Your task to perform on an android device: Open Chrome and go to settings Image 0: 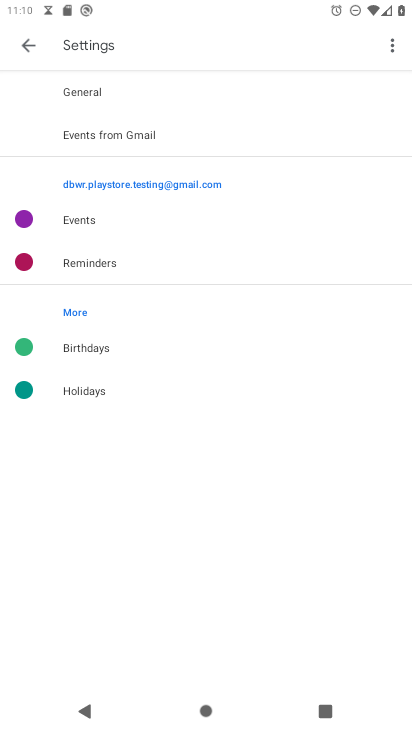
Step 0: press home button
Your task to perform on an android device: Open Chrome and go to settings Image 1: 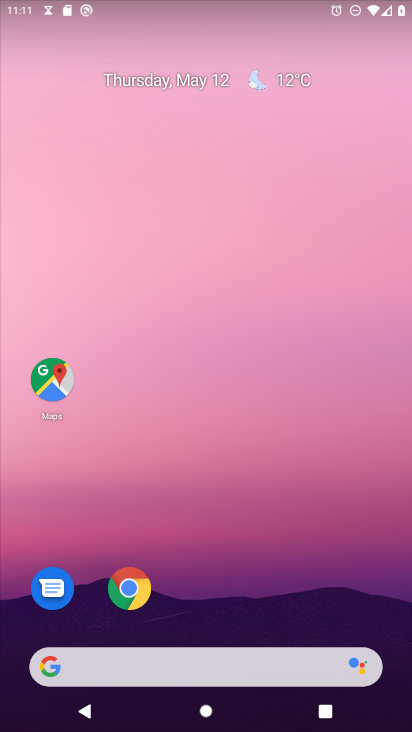
Step 1: click (129, 586)
Your task to perform on an android device: Open Chrome and go to settings Image 2: 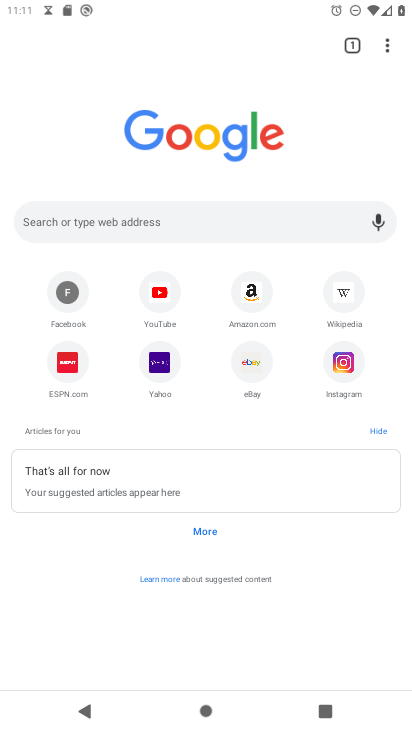
Step 2: click (388, 48)
Your task to perform on an android device: Open Chrome and go to settings Image 3: 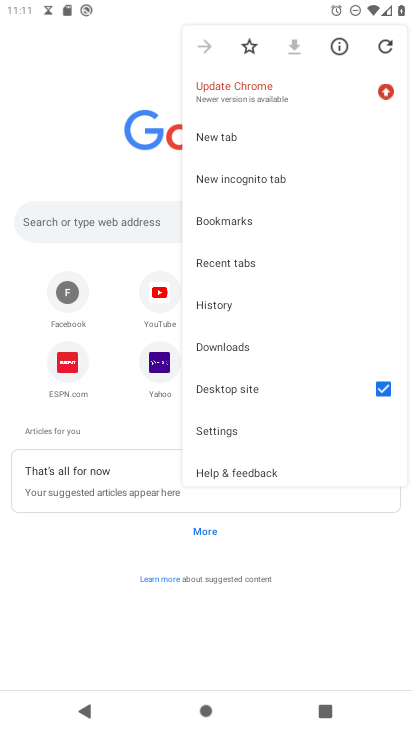
Step 3: click (228, 429)
Your task to perform on an android device: Open Chrome and go to settings Image 4: 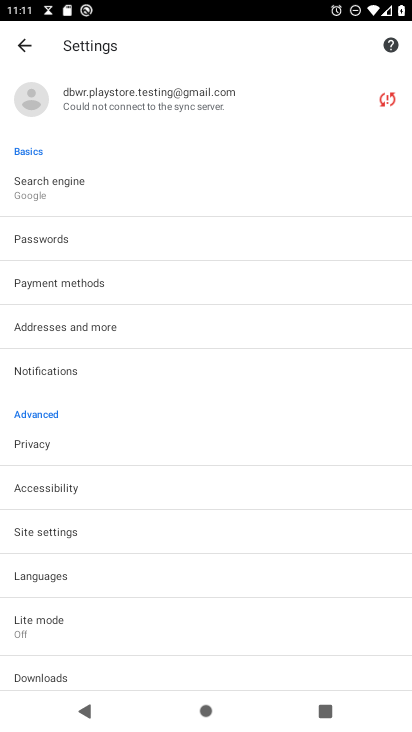
Step 4: task complete